Your task to perform on an android device: Turn off the flashlight Image 0: 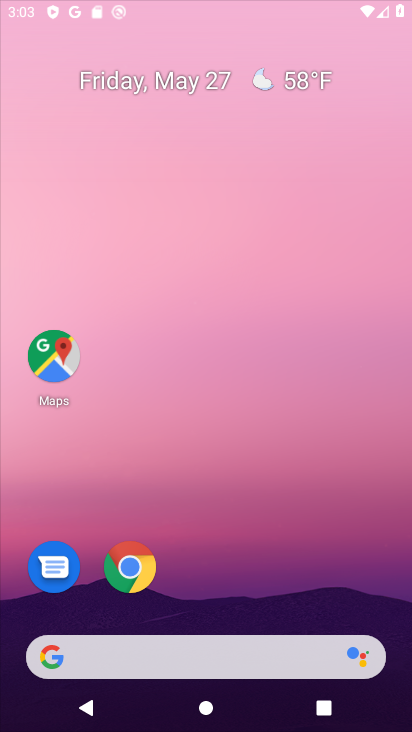
Step 0: press home button
Your task to perform on an android device: Turn off the flashlight Image 1: 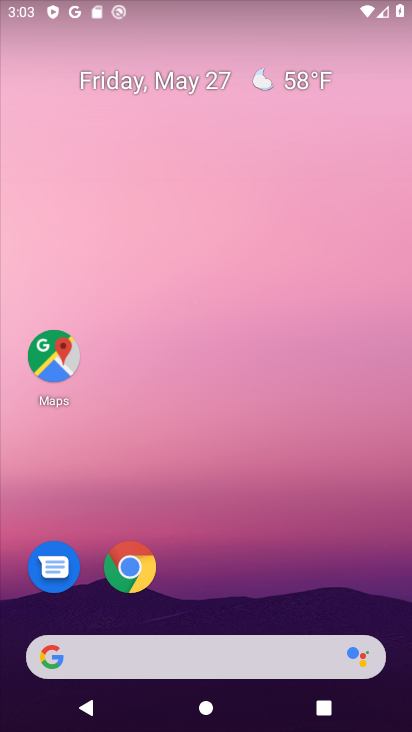
Step 1: drag from (219, 611) to (241, 68)
Your task to perform on an android device: Turn off the flashlight Image 2: 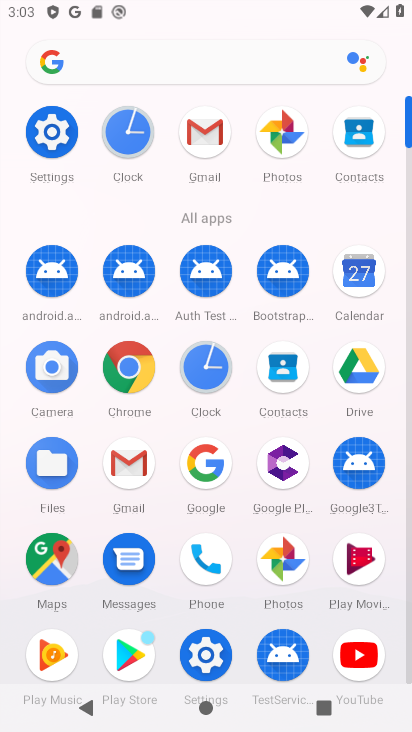
Step 2: click (49, 122)
Your task to perform on an android device: Turn off the flashlight Image 3: 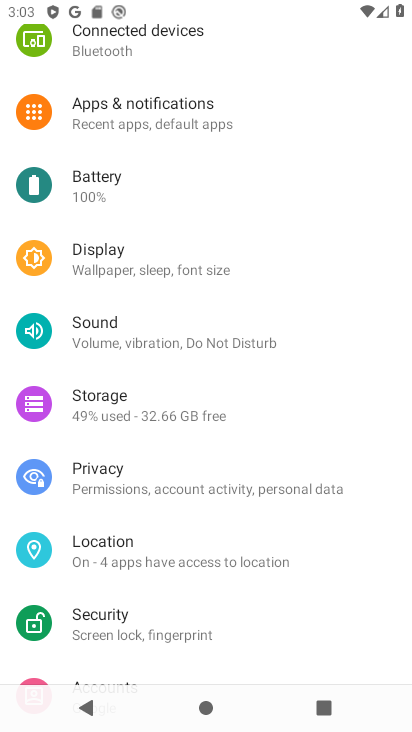
Step 3: drag from (189, 107) to (189, 515)
Your task to perform on an android device: Turn off the flashlight Image 4: 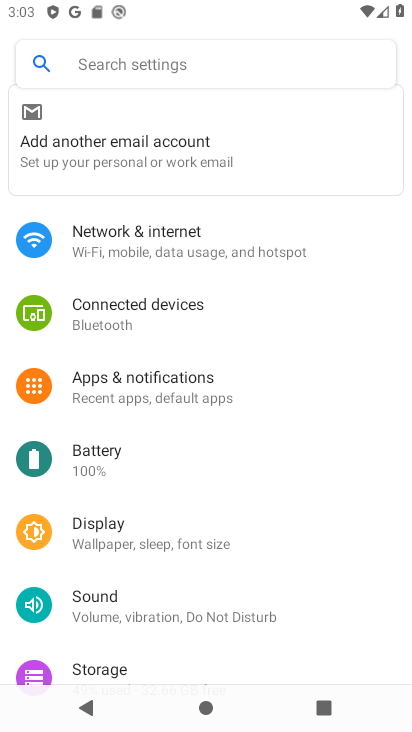
Step 4: click (181, 59)
Your task to perform on an android device: Turn off the flashlight Image 5: 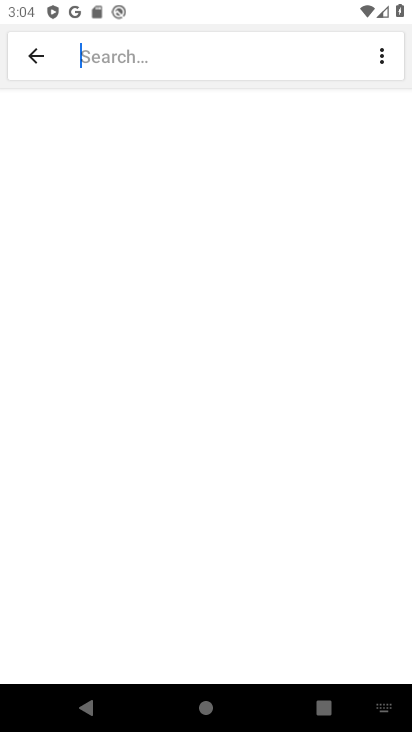
Step 5: type "flashlight"
Your task to perform on an android device: Turn off the flashlight Image 6: 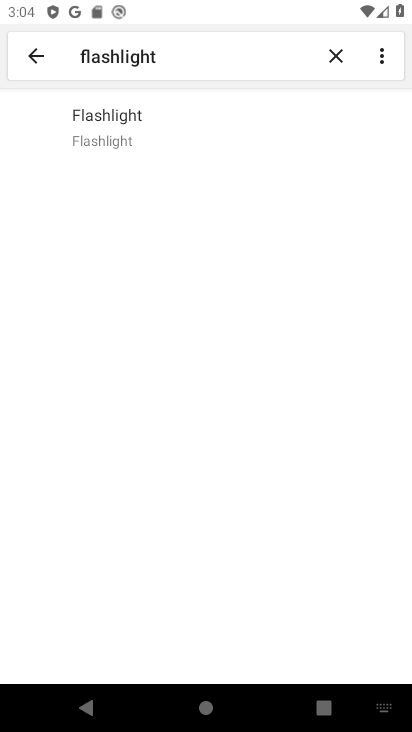
Step 6: click (149, 127)
Your task to perform on an android device: Turn off the flashlight Image 7: 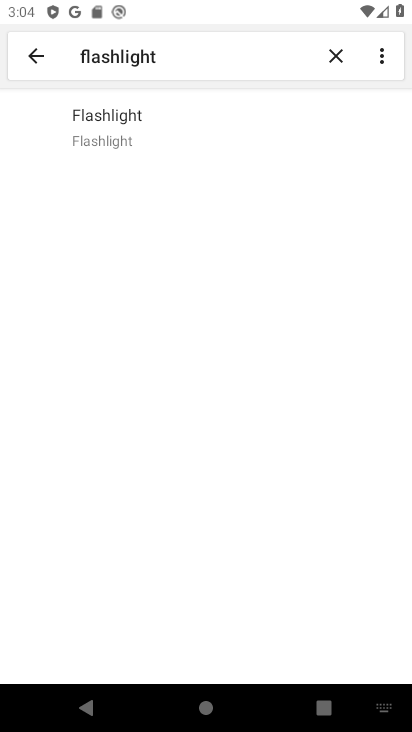
Step 7: click (150, 123)
Your task to perform on an android device: Turn off the flashlight Image 8: 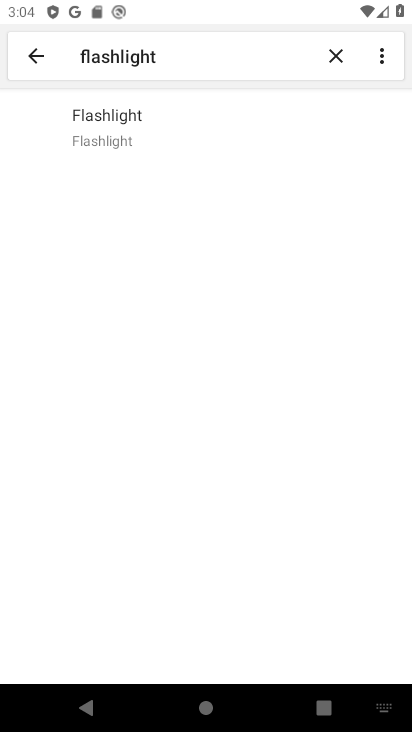
Step 8: task complete